Your task to perform on an android device: What's on my calendar tomorrow? Image 0: 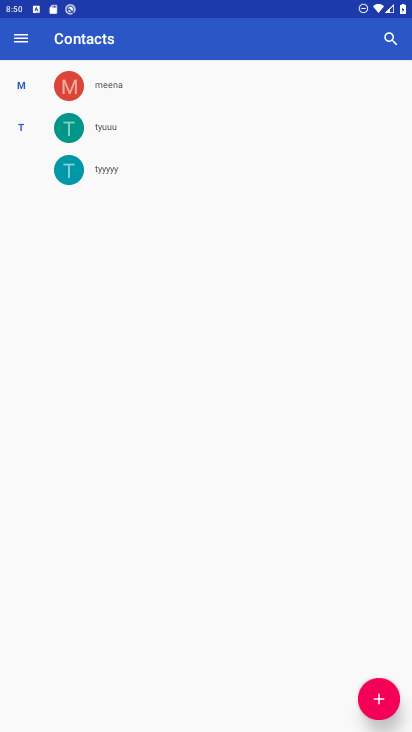
Step 0: press home button
Your task to perform on an android device: What's on my calendar tomorrow? Image 1: 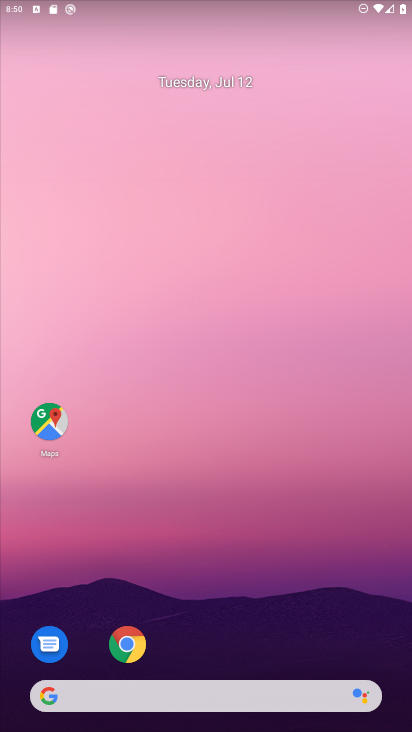
Step 1: drag from (376, 653) to (325, 264)
Your task to perform on an android device: What's on my calendar tomorrow? Image 2: 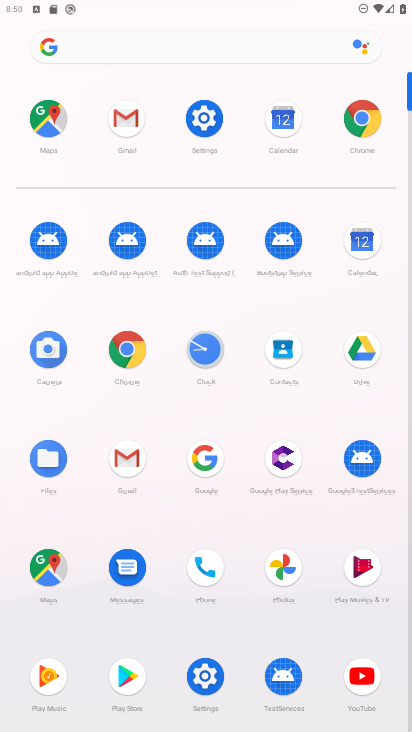
Step 2: click (359, 234)
Your task to perform on an android device: What's on my calendar tomorrow? Image 3: 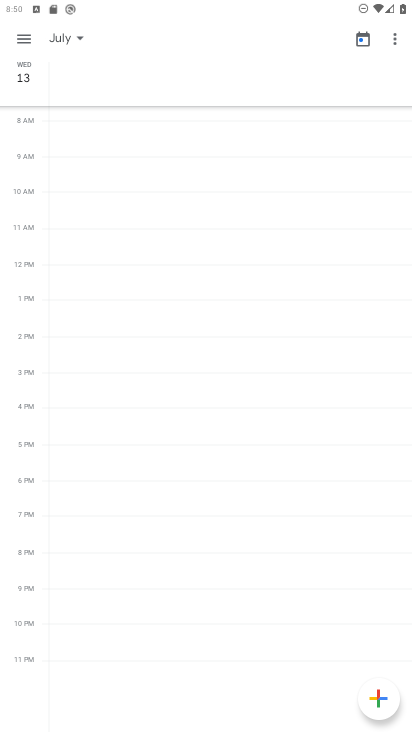
Step 3: click (16, 35)
Your task to perform on an android device: What's on my calendar tomorrow? Image 4: 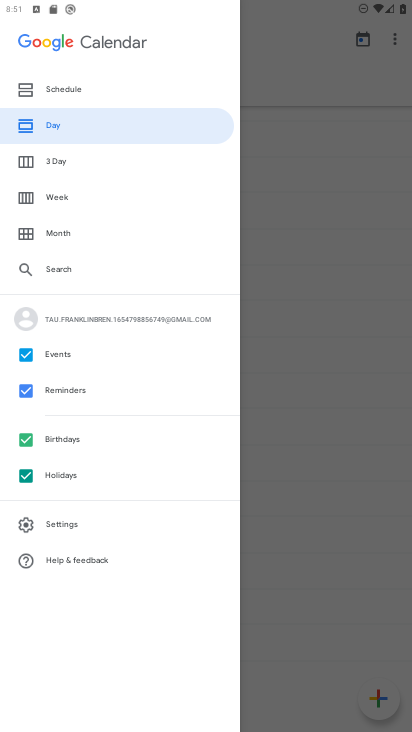
Step 4: click (371, 313)
Your task to perform on an android device: What's on my calendar tomorrow? Image 5: 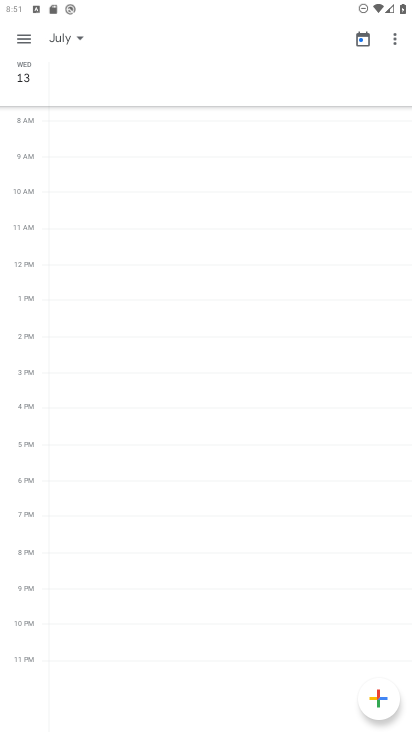
Step 5: task complete